Your task to perform on an android device: snooze an email in the gmail app Image 0: 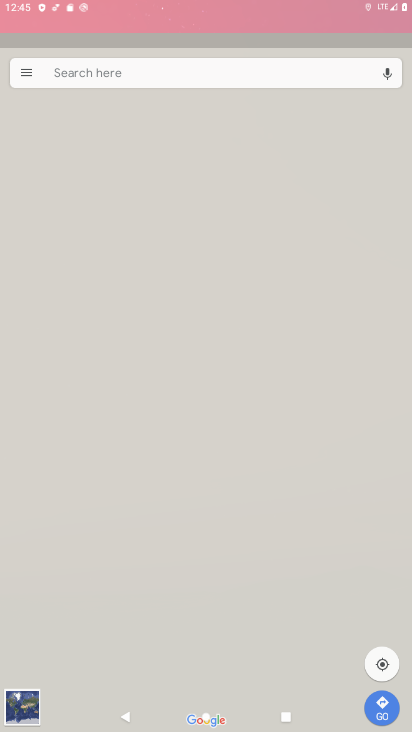
Step 0: drag from (289, 222) to (337, 45)
Your task to perform on an android device: snooze an email in the gmail app Image 1: 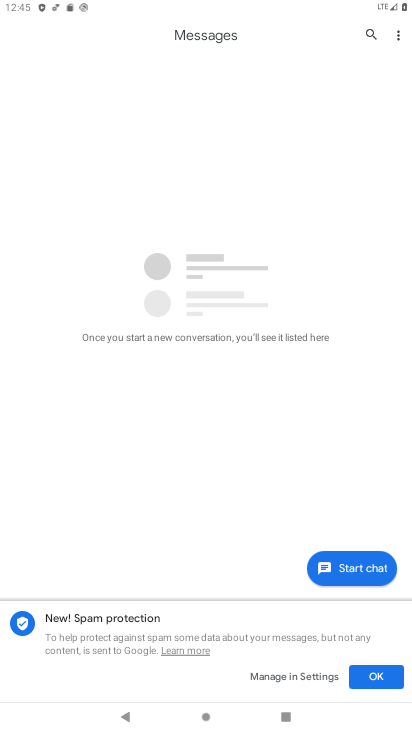
Step 1: press home button
Your task to perform on an android device: snooze an email in the gmail app Image 2: 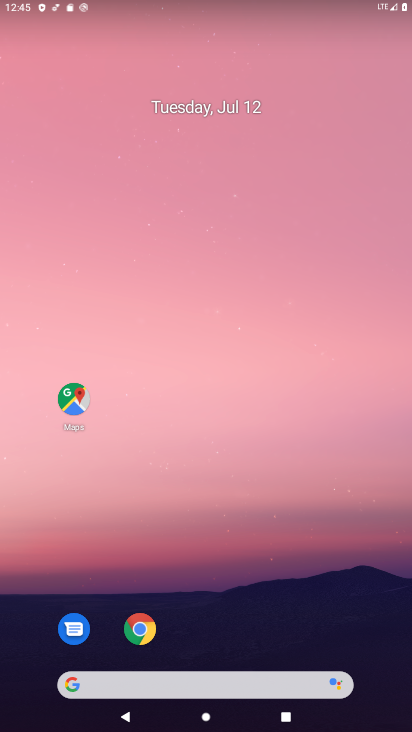
Step 2: drag from (18, 697) to (278, 164)
Your task to perform on an android device: snooze an email in the gmail app Image 3: 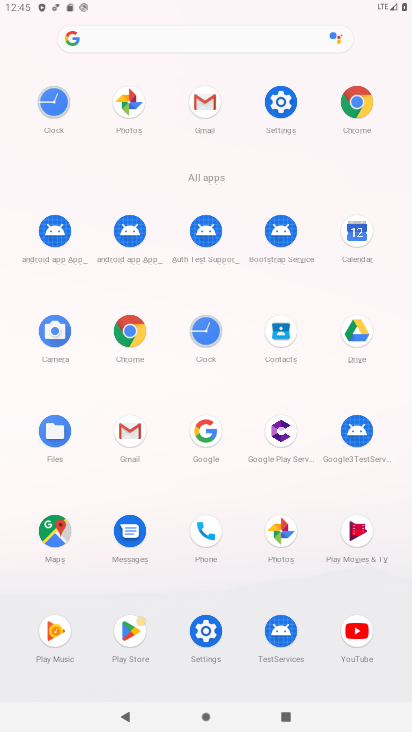
Step 3: click (122, 438)
Your task to perform on an android device: snooze an email in the gmail app Image 4: 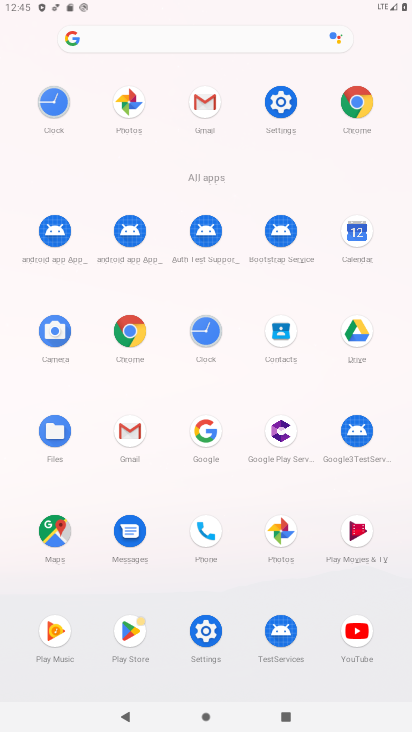
Step 4: click (122, 438)
Your task to perform on an android device: snooze an email in the gmail app Image 5: 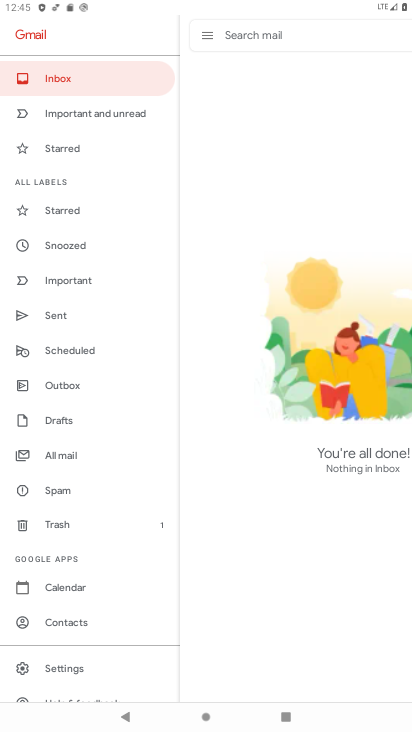
Step 5: click (43, 249)
Your task to perform on an android device: snooze an email in the gmail app Image 6: 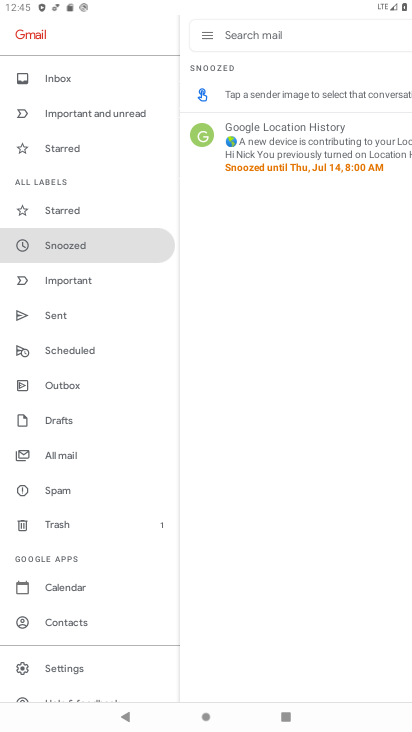
Step 6: task complete